Your task to perform on an android device: Go to Google maps Image 0: 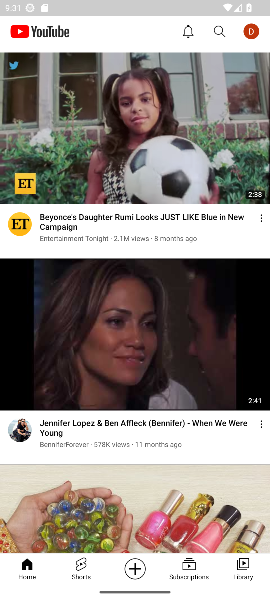
Step 0: press home button
Your task to perform on an android device: Go to Google maps Image 1: 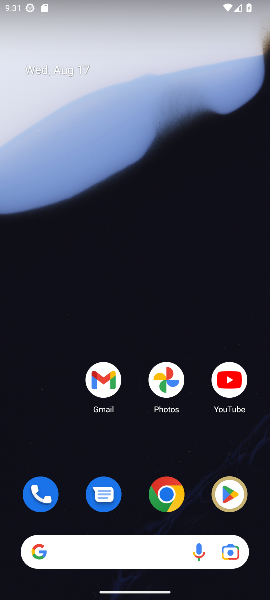
Step 1: drag from (124, 457) to (171, 31)
Your task to perform on an android device: Go to Google maps Image 2: 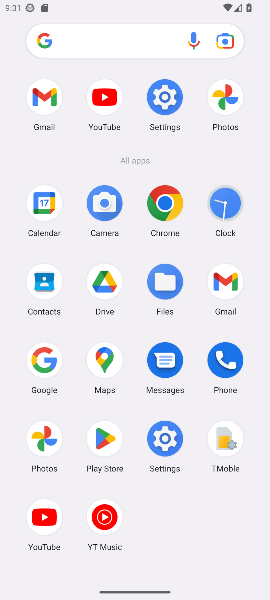
Step 2: click (107, 350)
Your task to perform on an android device: Go to Google maps Image 3: 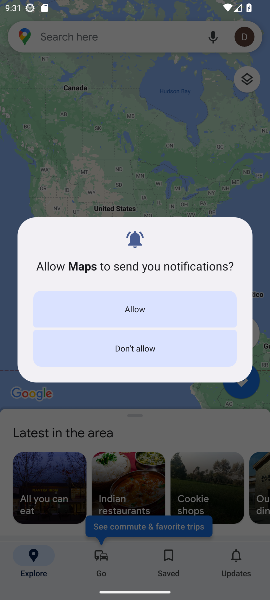
Step 3: task complete